Your task to perform on an android device: empty trash in google photos Image 0: 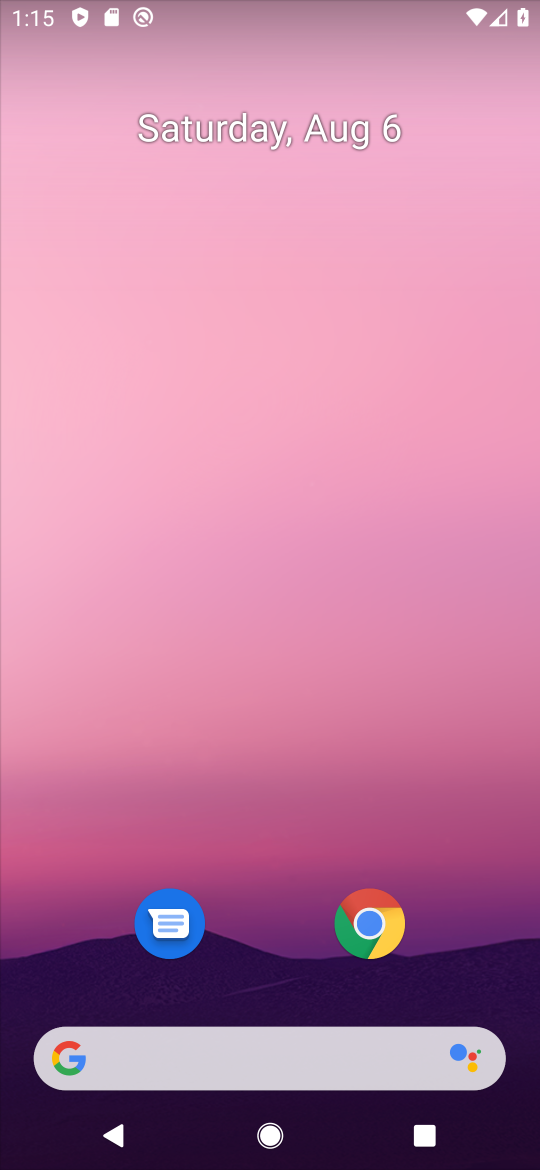
Step 0: drag from (249, 979) to (308, 240)
Your task to perform on an android device: empty trash in google photos Image 1: 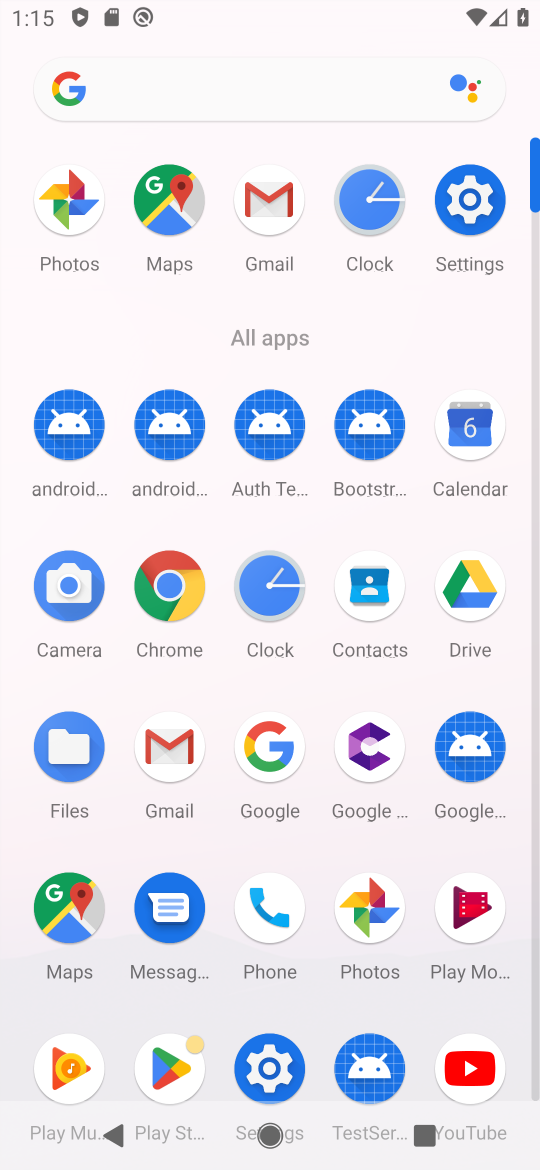
Step 1: click (337, 898)
Your task to perform on an android device: empty trash in google photos Image 2: 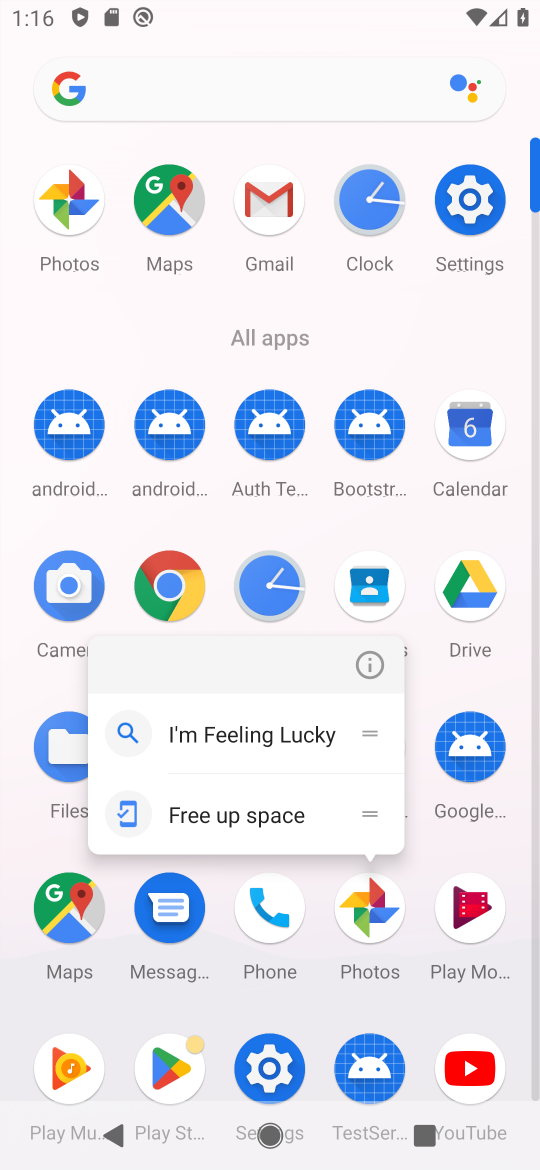
Step 2: click (356, 669)
Your task to perform on an android device: empty trash in google photos Image 3: 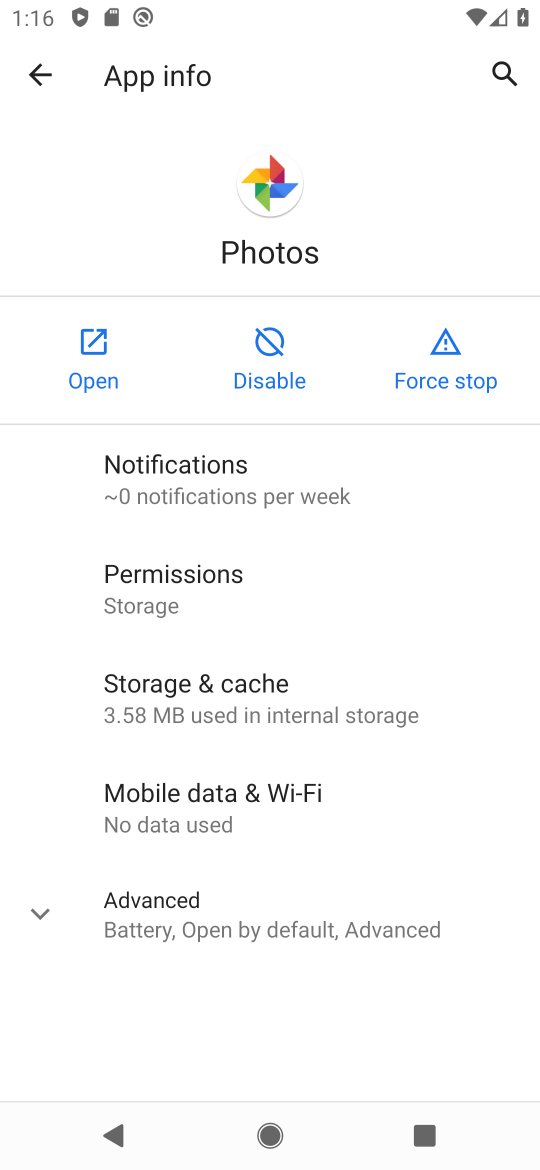
Step 3: click (92, 379)
Your task to perform on an android device: empty trash in google photos Image 4: 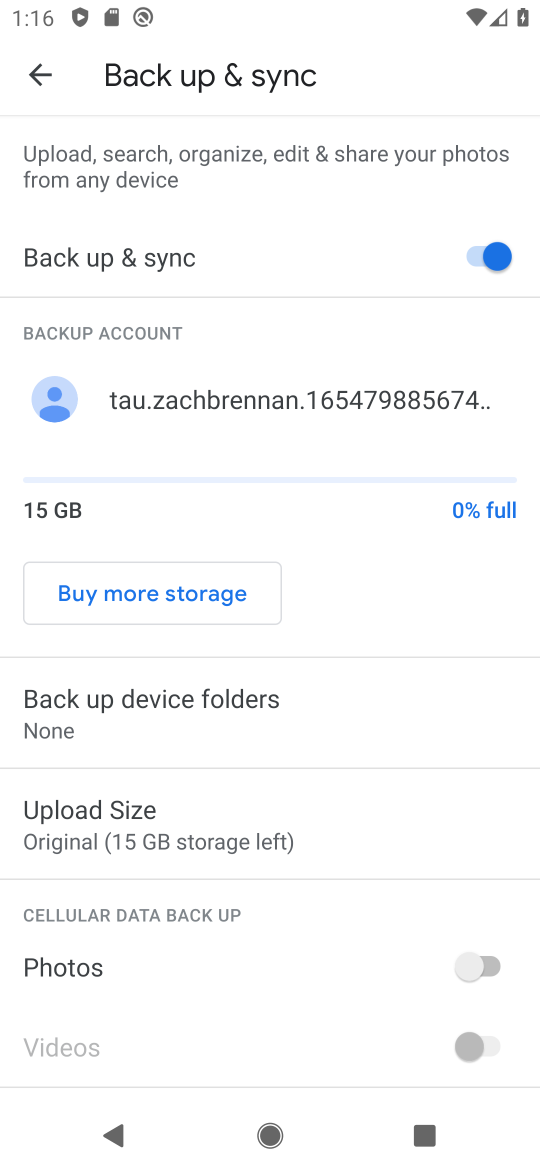
Step 4: drag from (233, 827) to (235, 412)
Your task to perform on an android device: empty trash in google photos Image 5: 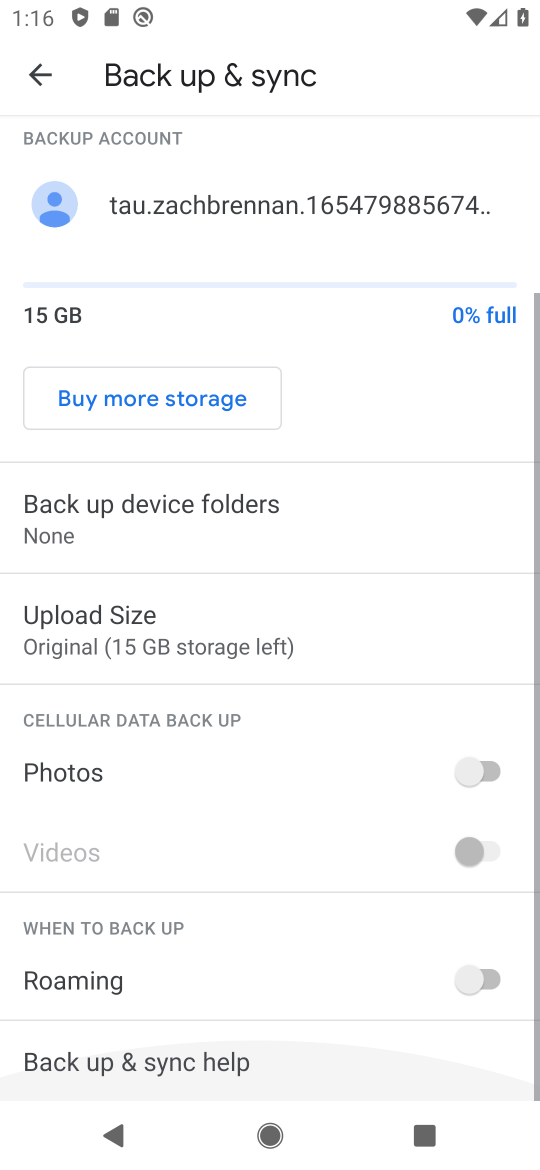
Step 5: drag from (240, 392) to (257, 843)
Your task to perform on an android device: empty trash in google photos Image 6: 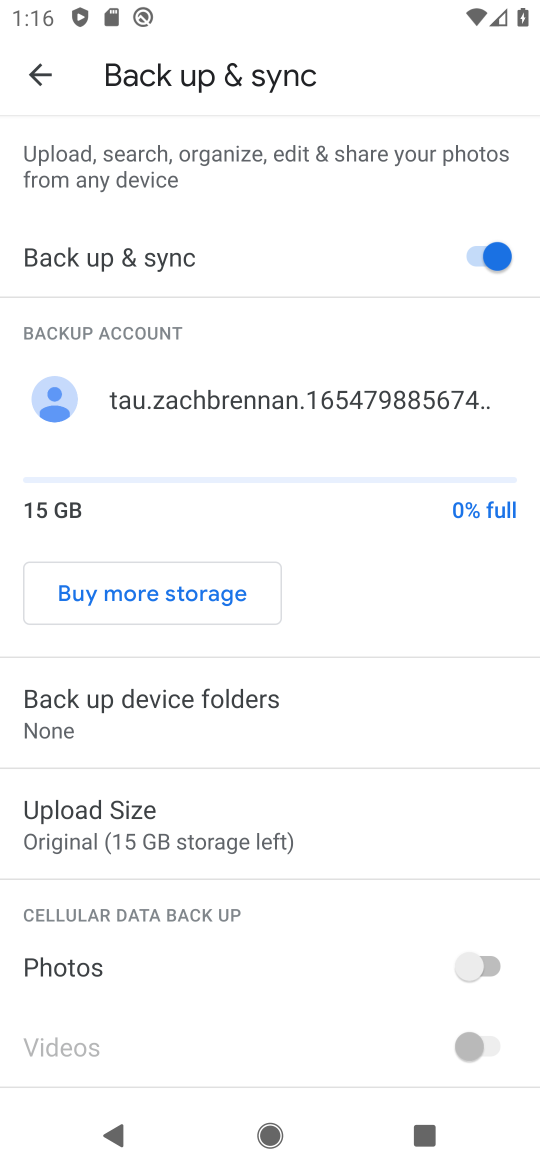
Step 6: click (14, 71)
Your task to perform on an android device: empty trash in google photos Image 7: 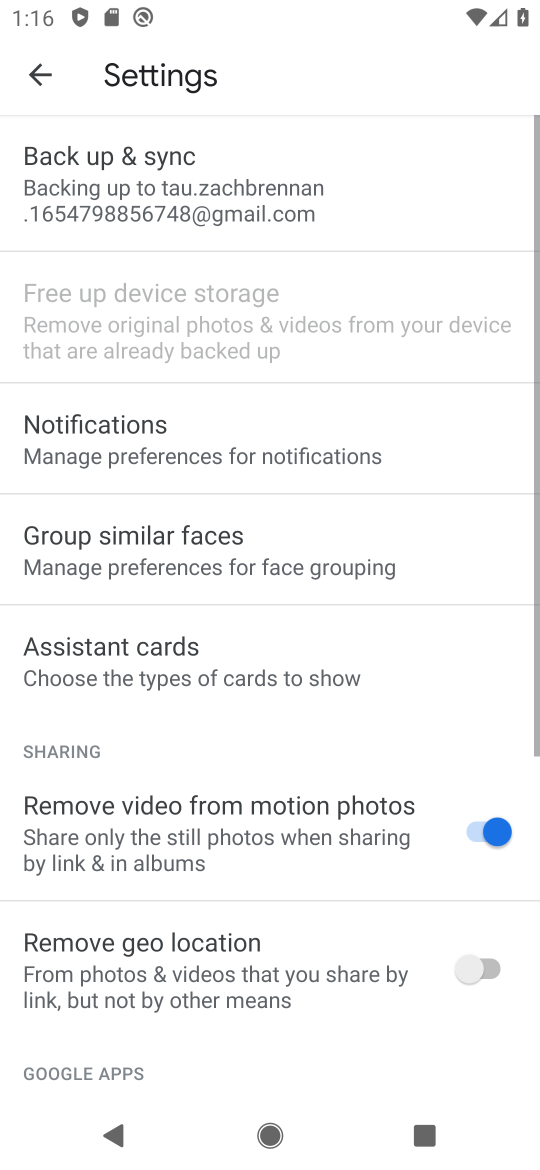
Step 7: click (52, 81)
Your task to perform on an android device: empty trash in google photos Image 8: 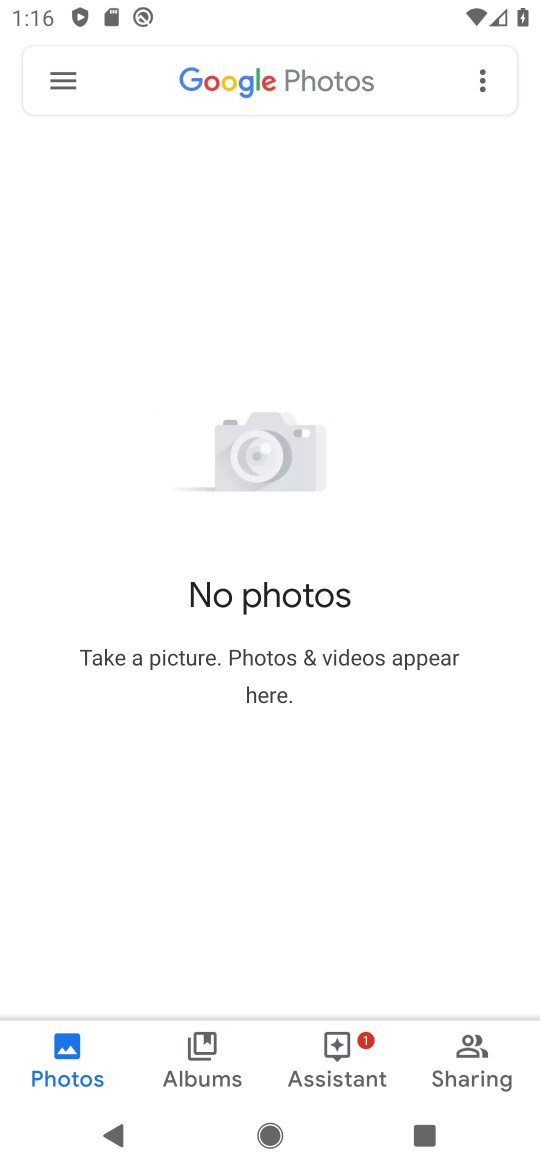
Step 8: click (42, 75)
Your task to perform on an android device: empty trash in google photos Image 9: 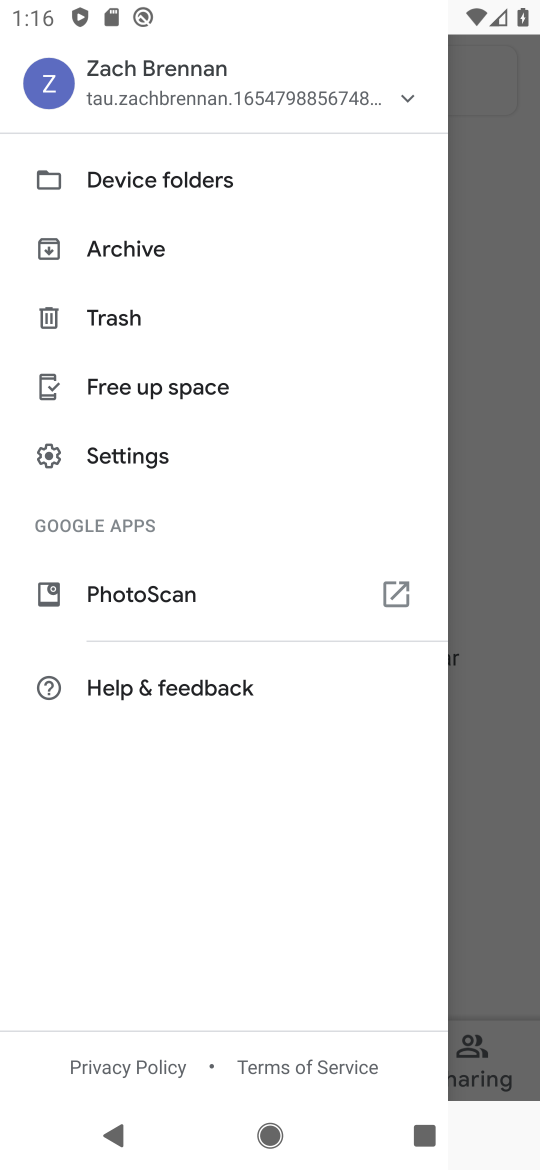
Step 9: click (120, 319)
Your task to perform on an android device: empty trash in google photos Image 10: 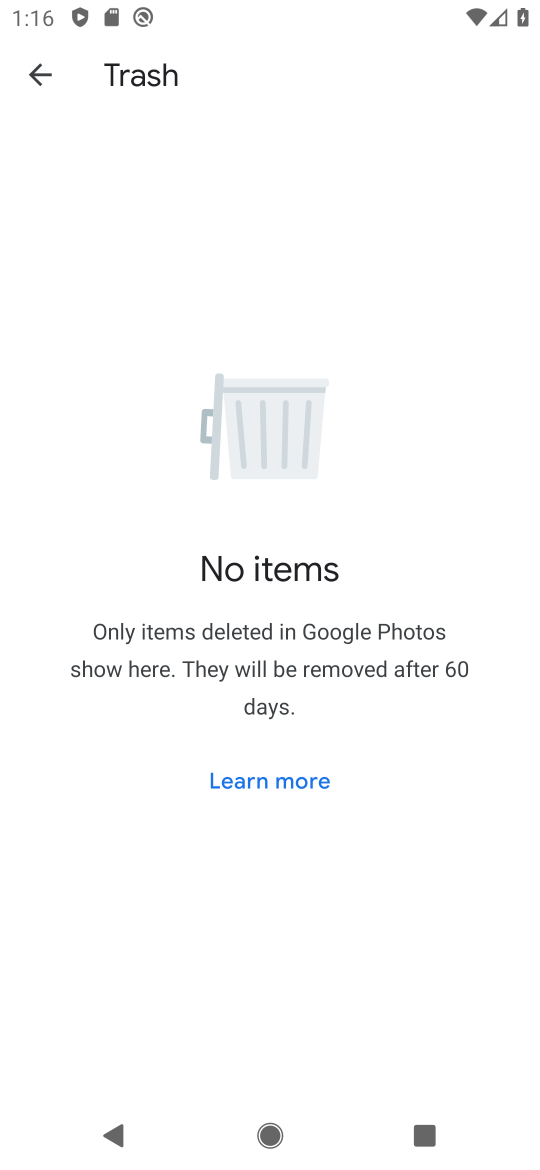
Step 10: click (388, 440)
Your task to perform on an android device: empty trash in google photos Image 11: 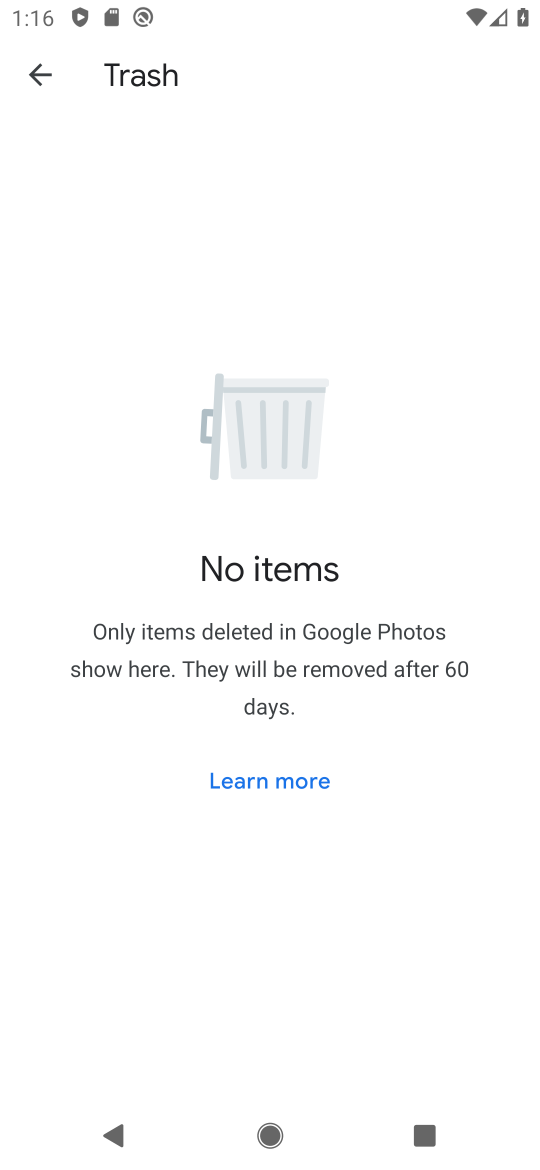
Step 11: task complete